Your task to perform on an android device: turn on javascript in the chrome app Image 0: 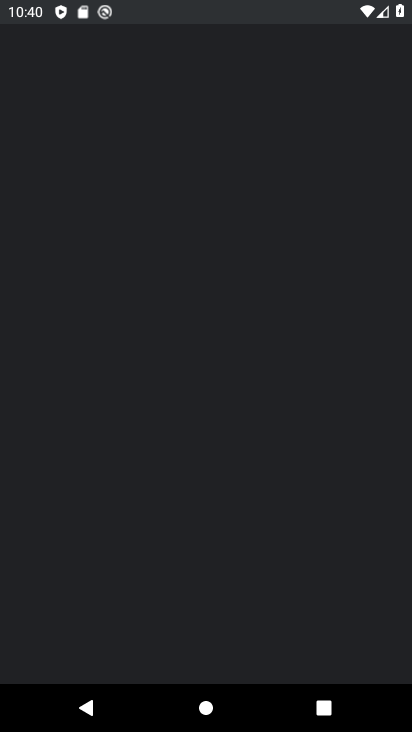
Step 0: drag from (211, 602) to (194, 372)
Your task to perform on an android device: turn on javascript in the chrome app Image 1: 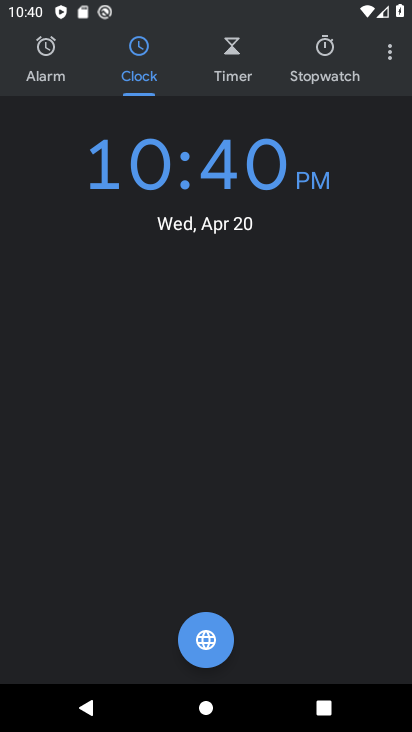
Step 1: press home button
Your task to perform on an android device: turn on javascript in the chrome app Image 2: 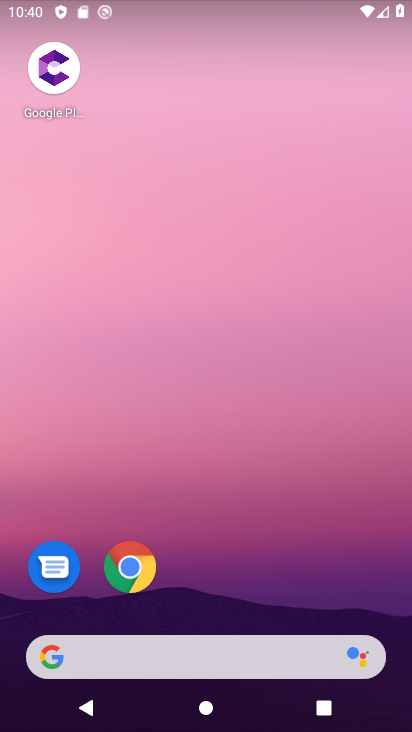
Step 2: drag from (224, 643) to (315, 42)
Your task to perform on an android device: turn on javascript in the chrome app Image 3: 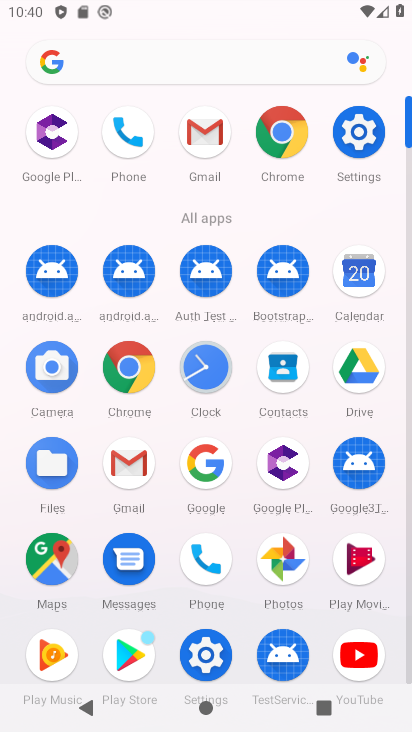
Step 3: click (281, 140)
Your task to perform on an android device: turn on javascript in the chrome app Image 4: 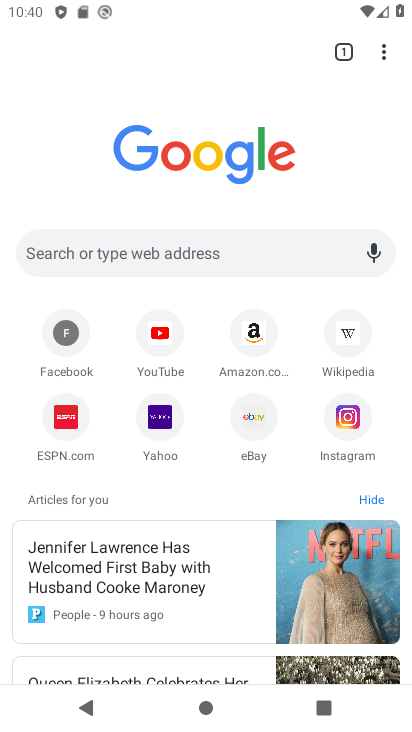
Step 4: drag from (389, 44) to (213, 434)
Your task to perform on an android device: turn on javascript in the chrome app Image 5: 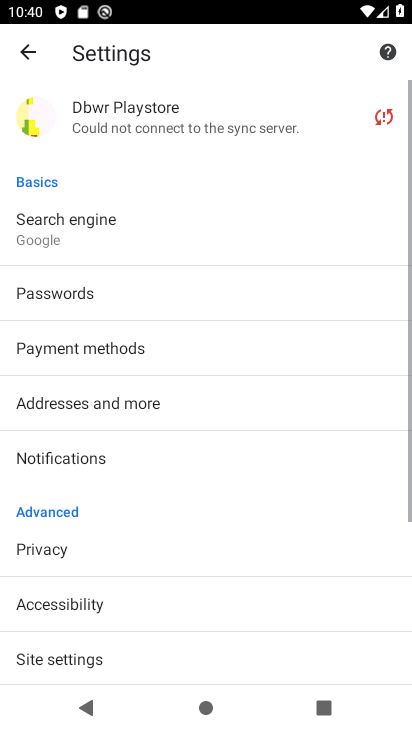
Step 5: drag from (158, 624) to (161, 484)
Your task to perform on an android device: turn on javascript in the chrome app Image 6: 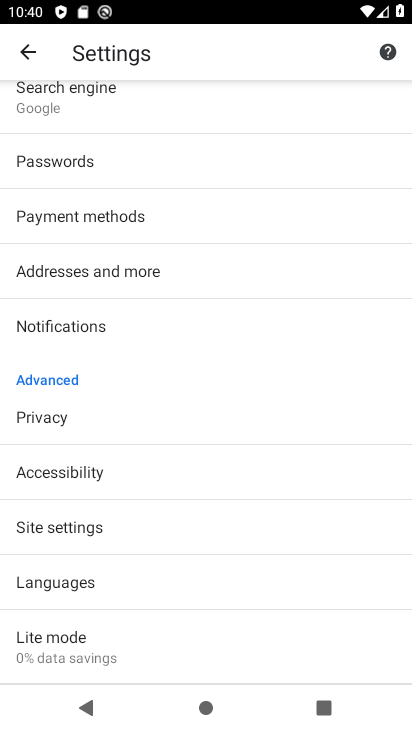
Step 6: click (59, 527)
Your task to perform on an android device: turn on javascript in the chrome app Image 7: 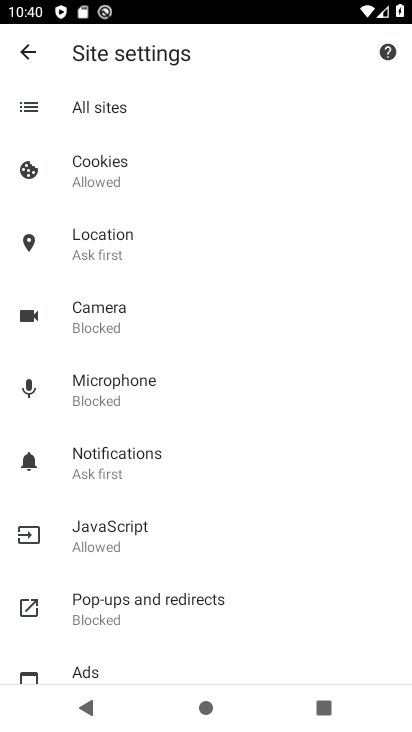
Step 7: click (160, 513)
Your task to perform on an android device: turn on javascript in the chrome app Image 8: 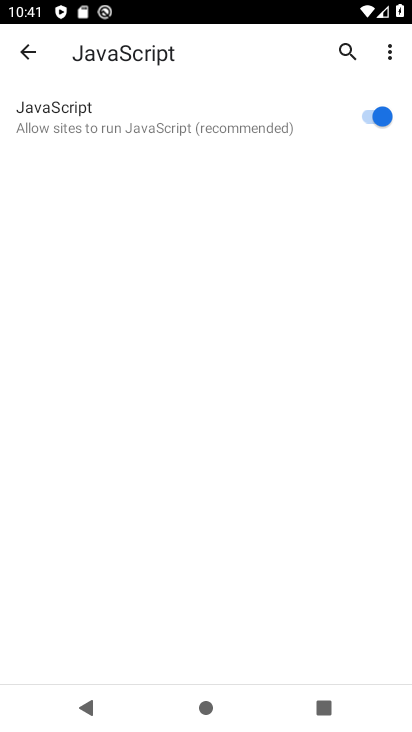
Step 8: task complete